Your task to perform on an android device: delete the emails in spam in the gmail app Image 0: 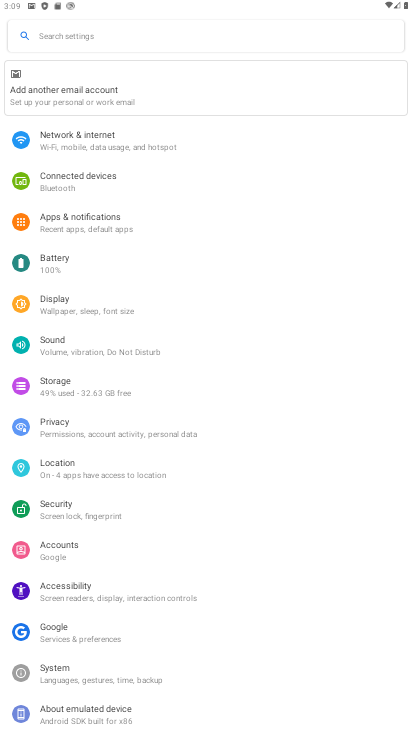
Step 0: press home button
Your task to perform on an android device: delete the emails in spam in the gmail app Image 1: 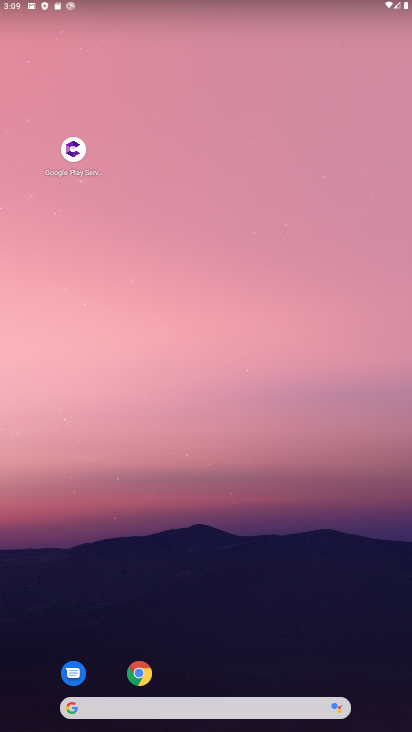
Step 1: drag from (271, 580) to (298, 106)
Your task to perform on an android device: delete the emails in spam in the gmail app Image 2: 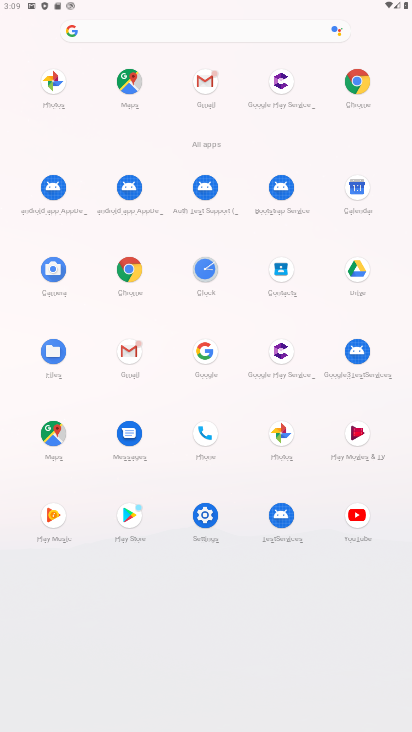
Step 2: click (128, 344)
Your task to perform on an android device: delete the emails in spam in the gmail app Image 3: 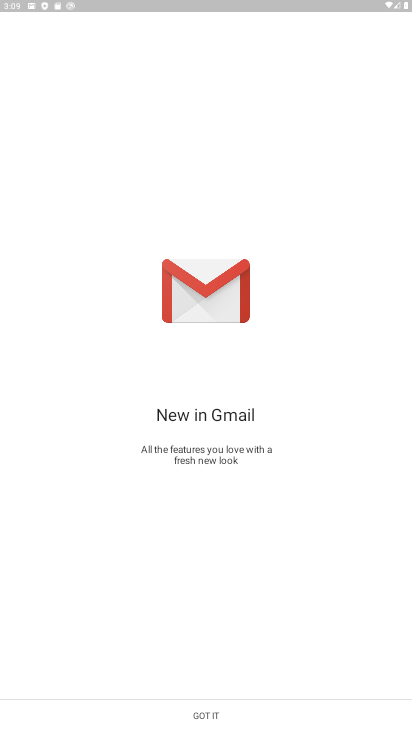
Step 3: click (184, 717)
Your task to perform on an android device: delete the emails in spam in the gmail app Image 4: 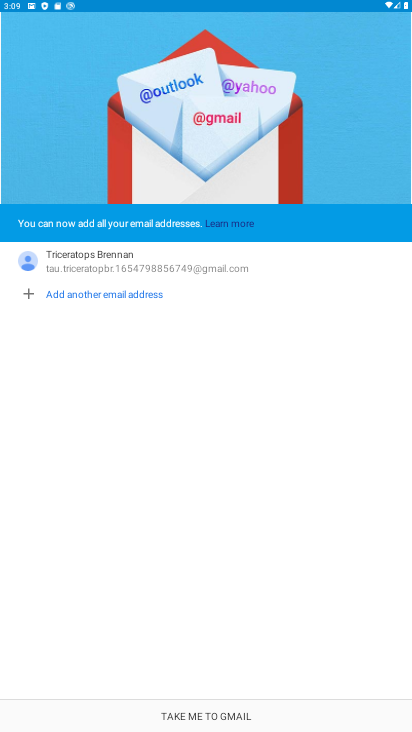
Step 4: click (202, 712)
Your task to perform on an android device: delete the emails in spam in the gmail app Image 5: 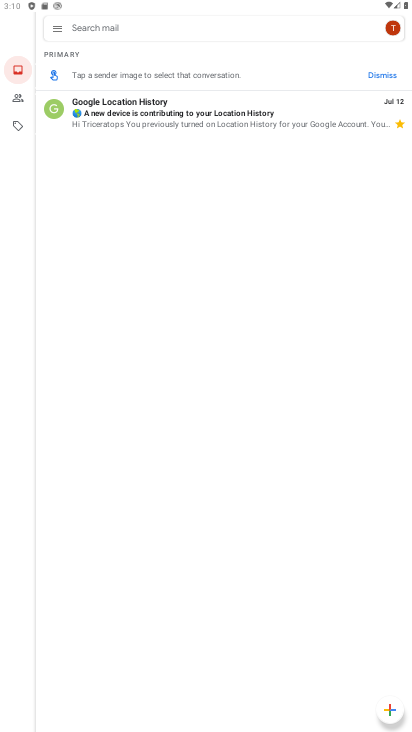
Step 5: click (154, 115)
Your task to perform on an android device: delete the emails in spam in the gmail app Image 6: 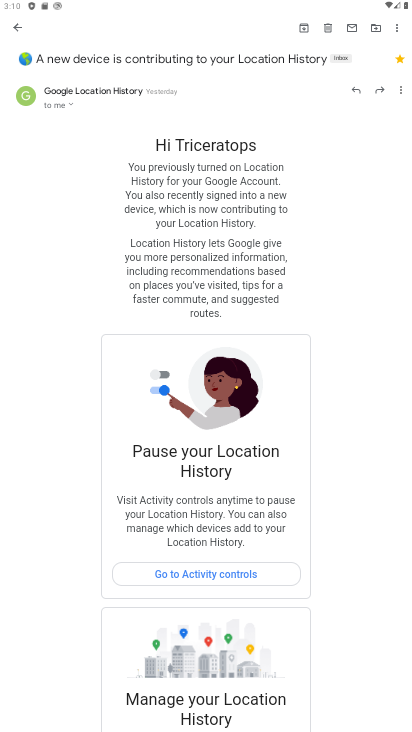
Step 6: click (27, 96)
Your task to perform on an android device: delete the emails in spam in the gmail app Image 7: 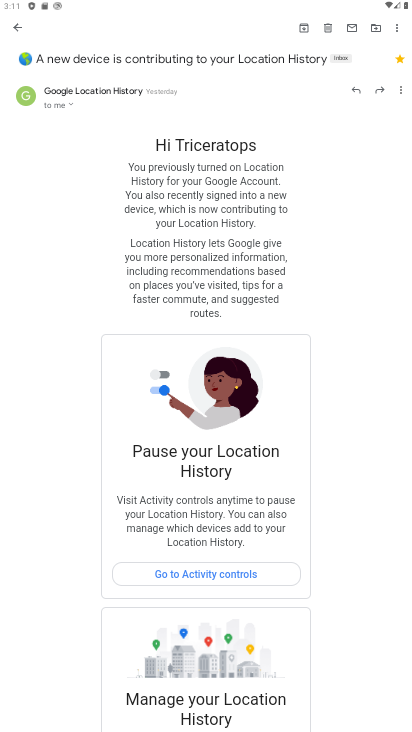
Step 7: click (19, 23)
Your task to perform on an android device: delete the emails in spam in the gmail app Image 8: 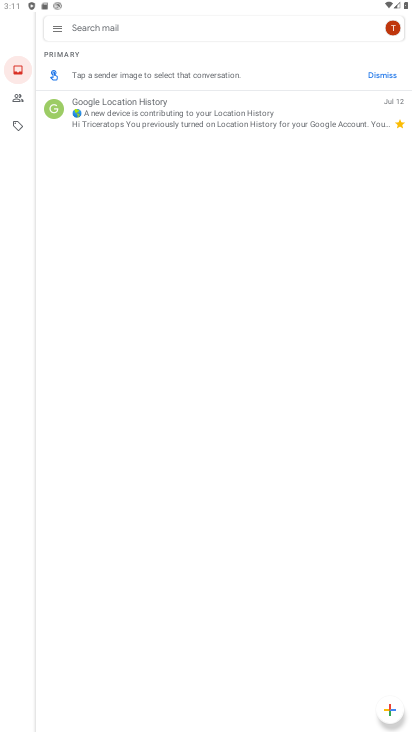
Step 8: click (60, 107)
Your task to perform on an android device: delete the emails in spam in the gmail app Image 9: 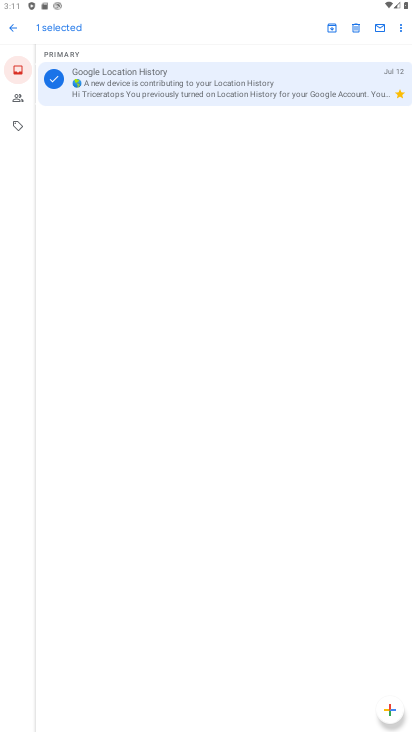
Step 9: click (348, 23)
Your task to perform on an android device: delete the emails in spam in the gmail app Image 10: 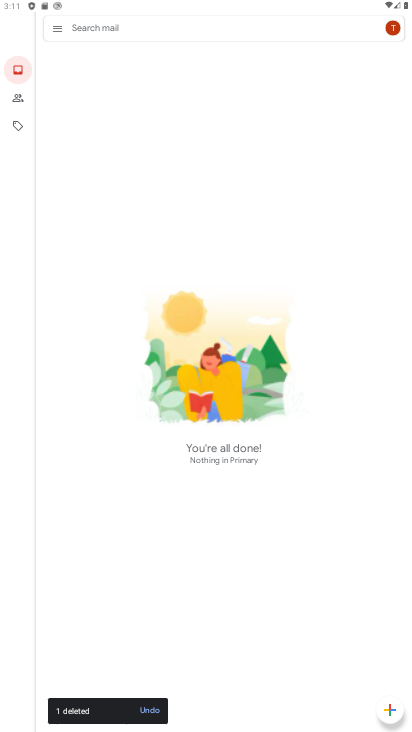
Step 10: task complete